Your task to perform on an android device: toggle improve location accuracy Image 0: 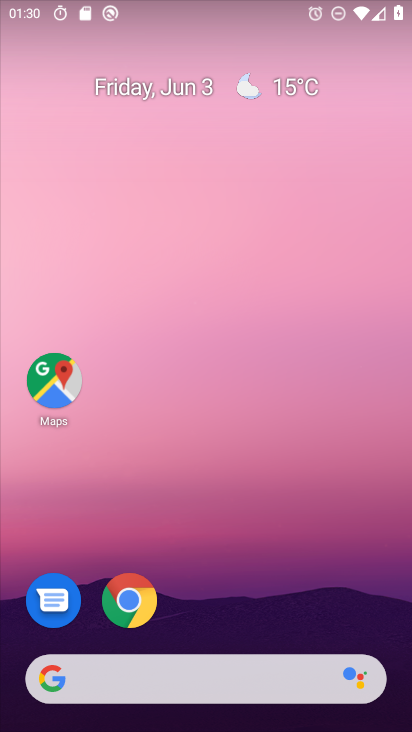
Step 0: drag from (243, 599) to (227, 88)
Your task to perform on an android device: toggle improve location accuracy Image 1: 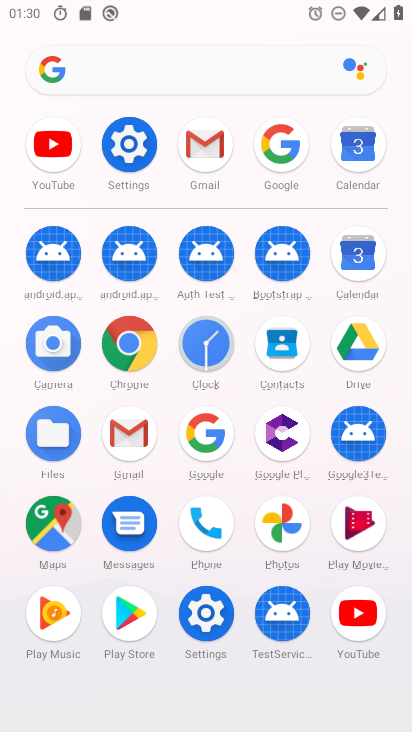
Step 1: click (138, 143)
Your task to perform on an android device: toggle improve location accuracy Image 2: 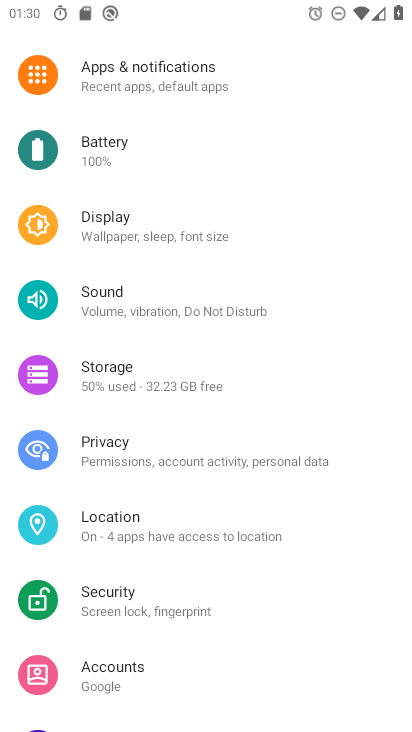
Step 2: click (157, 530)
Your task to perform on an android device: toggle improve location accuracy Image 3: 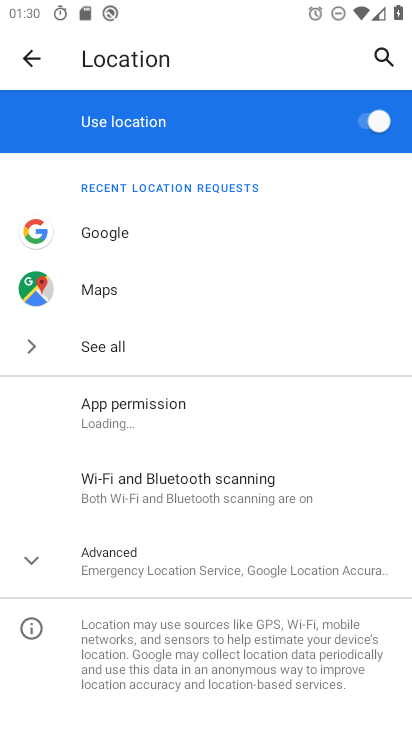
Step 3: click (170, 562)
Your task to perform on an android device: toggle improve location accuracy Image 4: 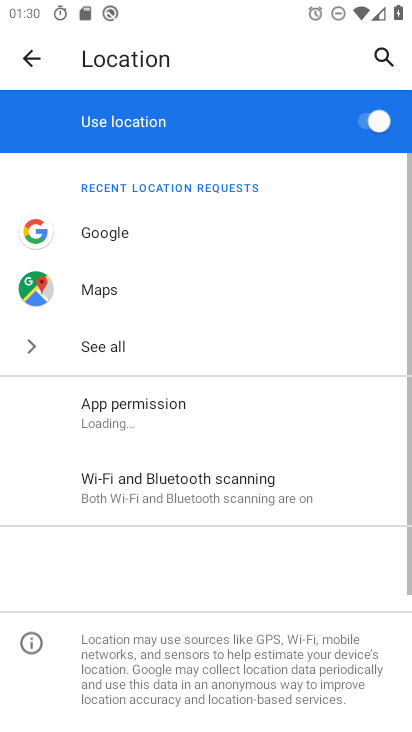
Step 4: drag from (246, 541) to (208, 238)
Your task to perform on an android device: toggle improve location accuracy Image 5: 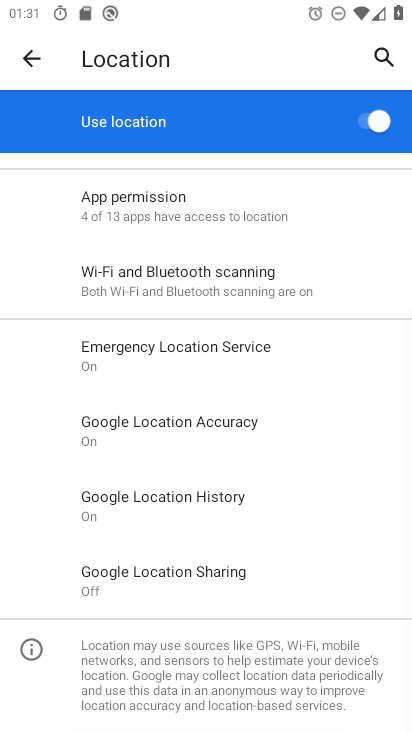
Step 5: click (198, 429)
Your task to perform on an android device: toggle improve location accuracy Image 6: 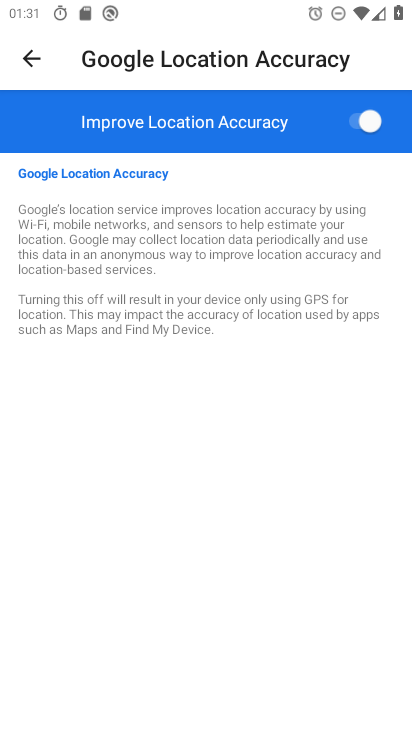
Step 6: click (374, 125)
Your task to perform on an android device: toggle improve location accuracy Image 7: 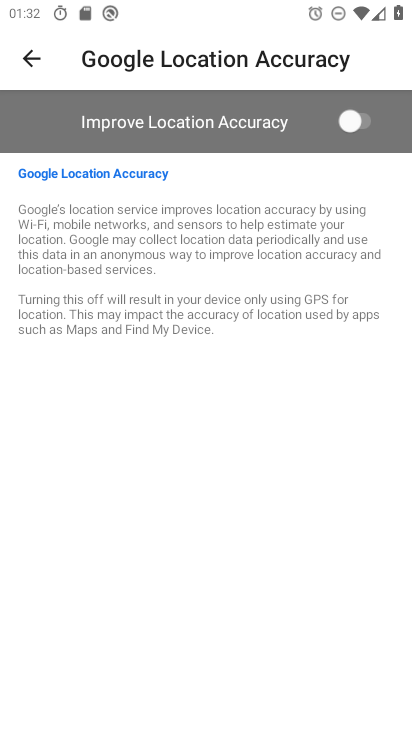
Step 7: task complete